Your task to perform on an android device: set an alarm Image 0: 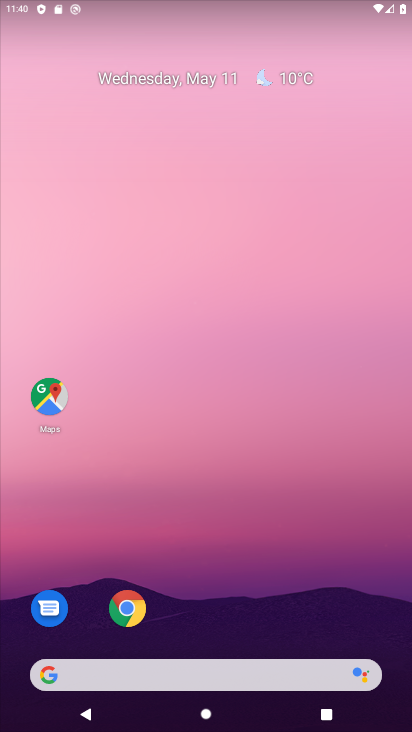
Step 0: drag from (260, 609) to (195, 129)
Your task to perform on an android device: set an alarm Image 1: 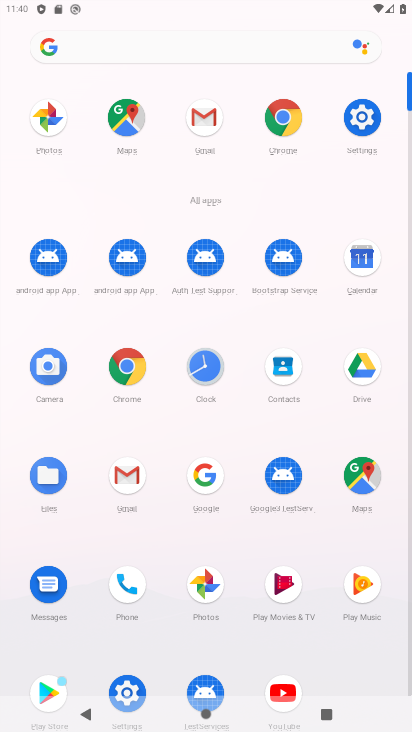
Step 1: click (207, 365)
Your task to perform on an android device: set an alarm Image 2: 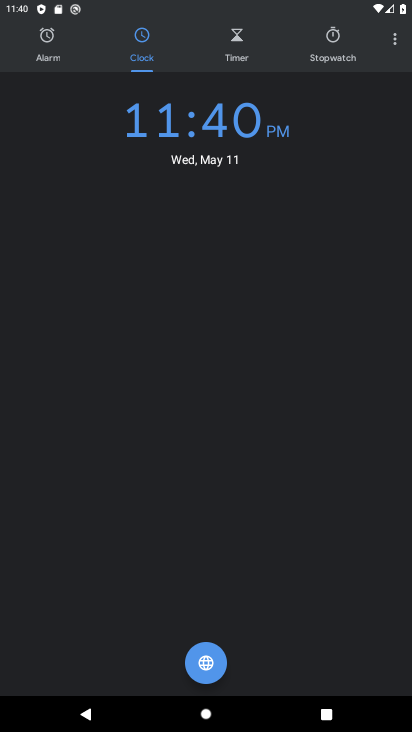
Step 2: click (49, 32)
Your task to perform on an android device: set an alarm Image 3: 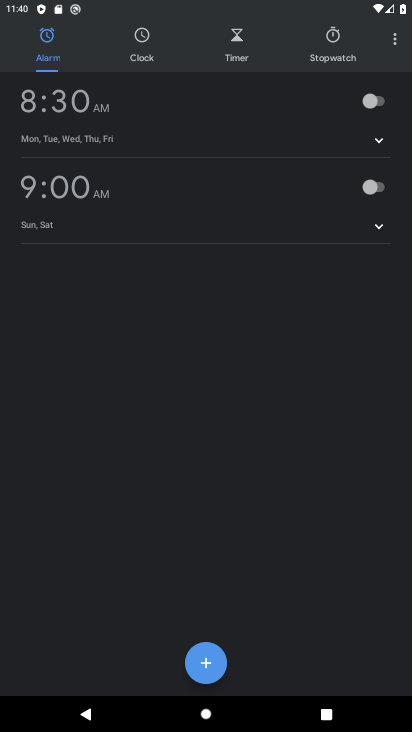
Step 3: click (203, 664)
Your task to perform on an android device: set an alarm Image 4: 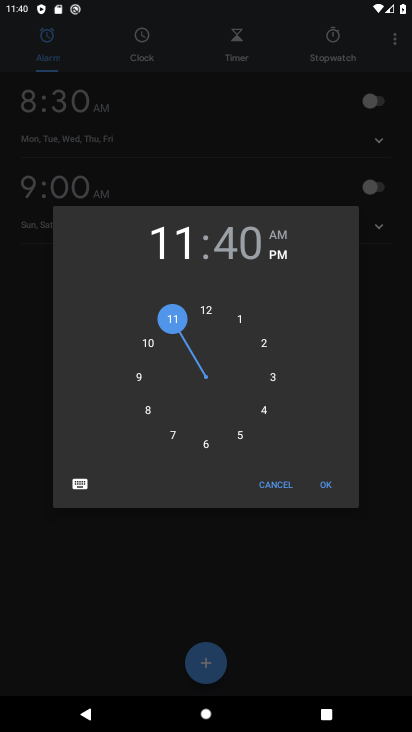
Step 4: click (142, 382)
Your task to perform on an android device: set an alarm Image 5: 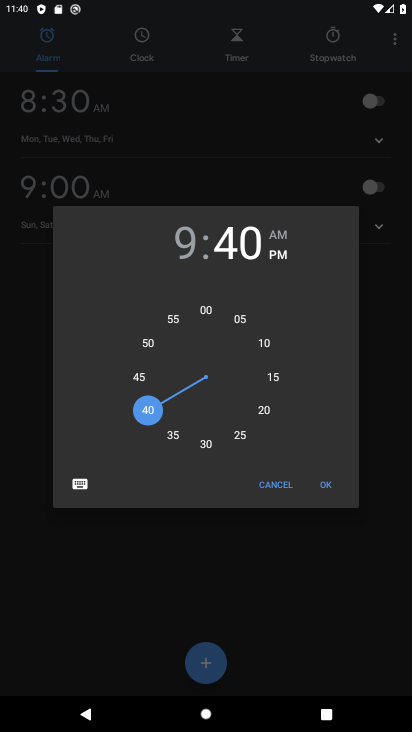
Step 5: click (276, 376)
Your task to perform on an android device: set an alarm Image 6: 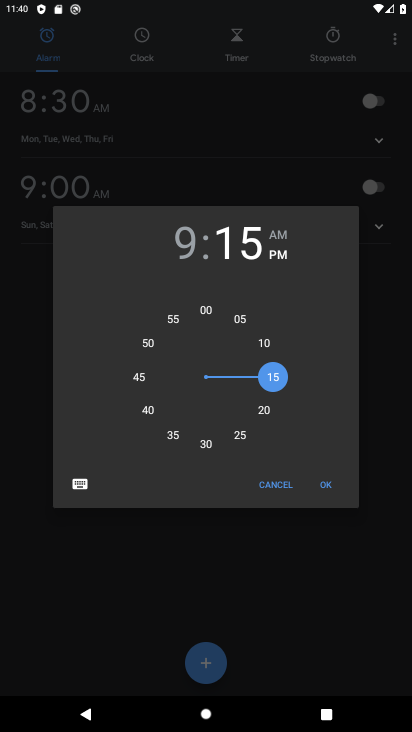
Step 6: click (328, 480)
Your task to perform on an android device: set an alarm Image 7: 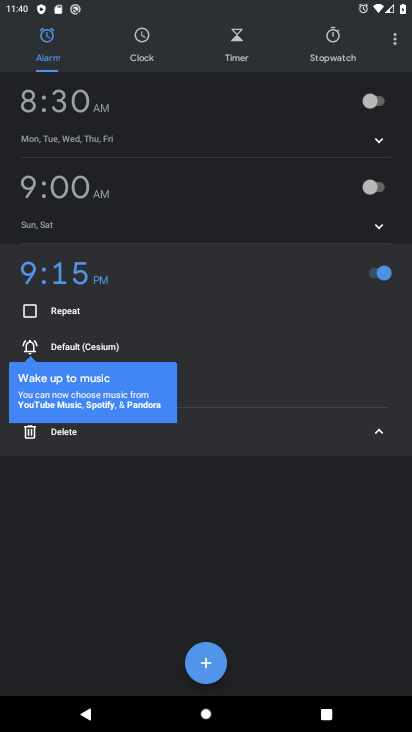
Step 7: click (384, 436)
Your task to perform on an android device: set an alarm Image 8: 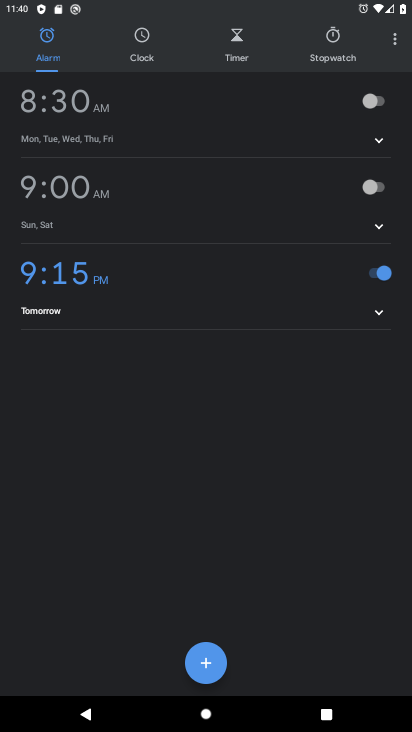
Step 8: task complete